Your task to perform on an android device: Open CNN.com Image 0: 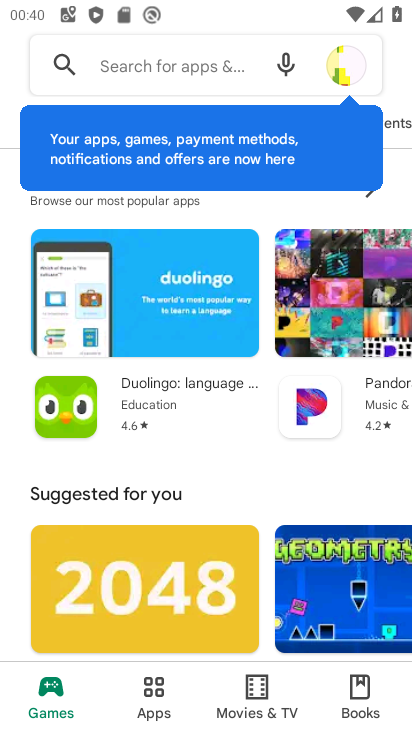
Step 0: press home button
Your task to perform on an android device: Open CNN.com Image 1: 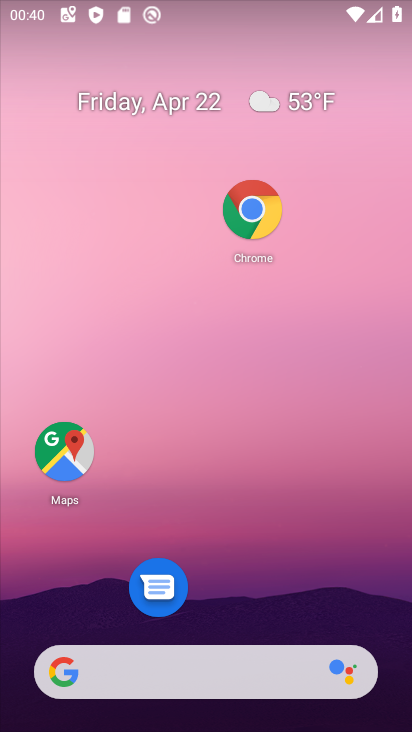
Step 1: drag from (292, 568) to (286, 85)
Your task to perform on an android device: Open CNN.com Image 2: 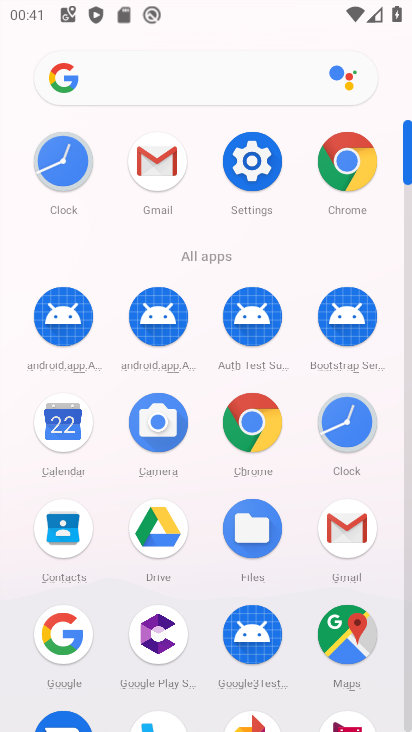
Step 2: click (252, 433)
Your task to perform on an android device: Open CNN.com Image 3: 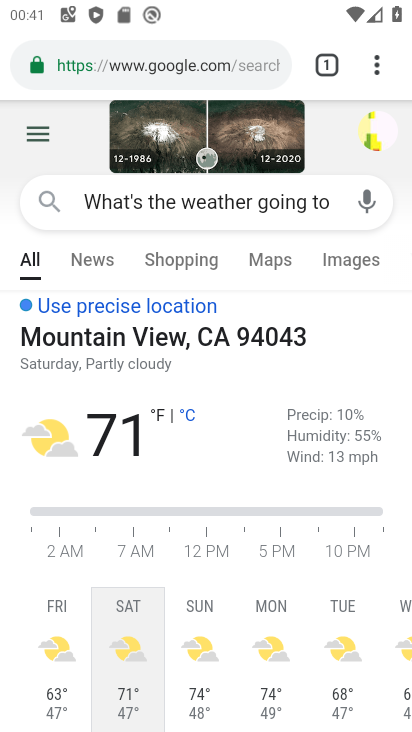
Step 3: click (236, 67)
Your task to perform on an android device: Open CNN.com Image 4: 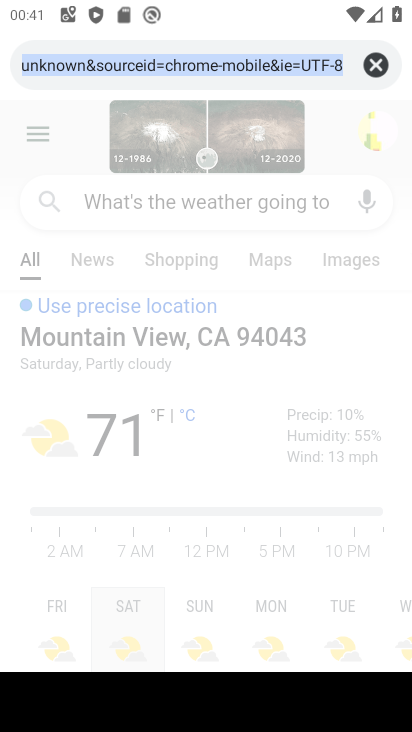
Step 4: click (372, 59)
Your task to perform on an android device: Open CNN.com Image 5: 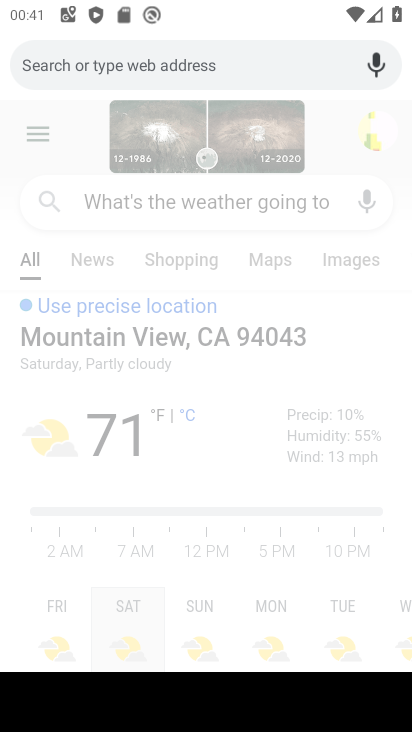
Step 5: type "CNN.com"
Your task to perform on an android device: Open CNN.com Image 6: 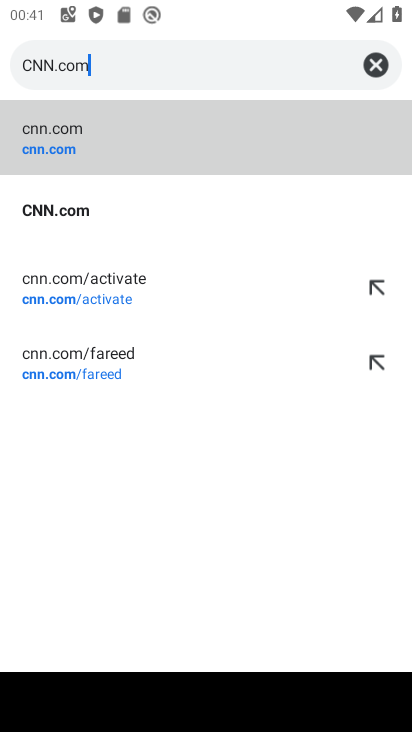
Step 6: click (38, 142)
Your task to perform on an android device: Open CNN.com Image 7: 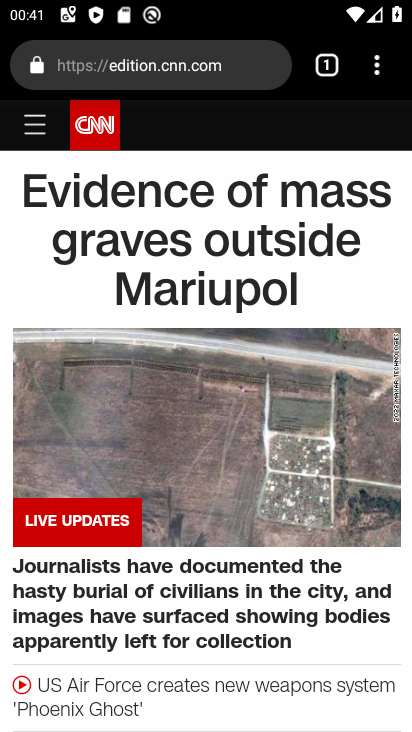
Step 7: task complete